Your task to perform on an android device: Open the stopwatch Image 0: 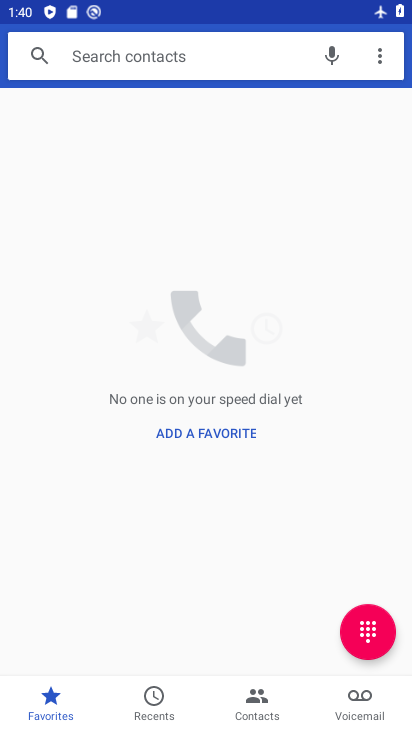
Step 0: press back button
Your task to perform on an android device: Open the stopwatch Image 1: 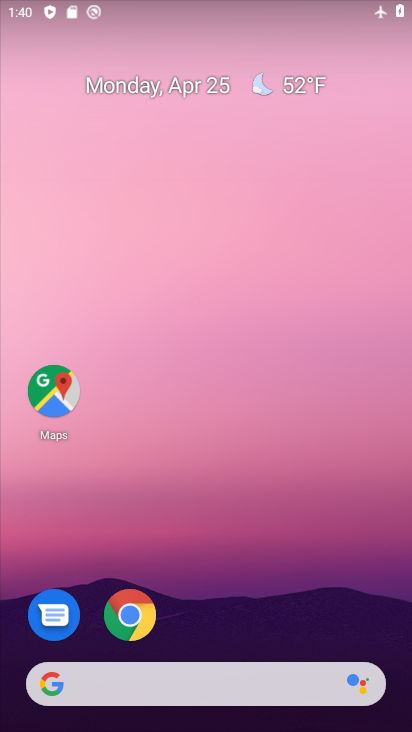
Step 1: drag from (234, 579) to (212, 27)
Your task to perform on an android device: Open the stopwatch Image 2: 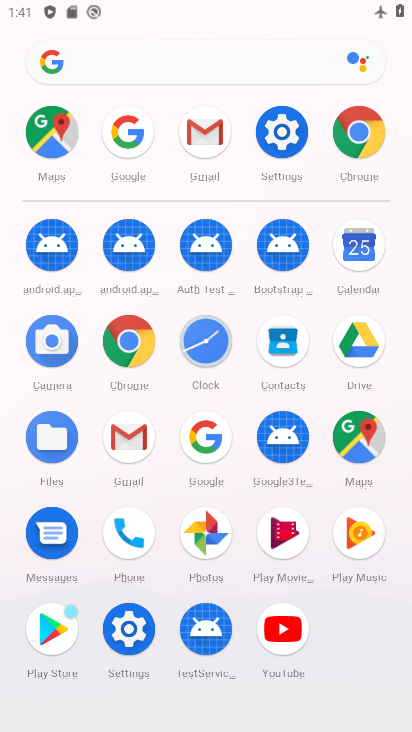
Step 2: click (205, 341)
Your task to perform on an android device: Open the stopwatch Image 3: 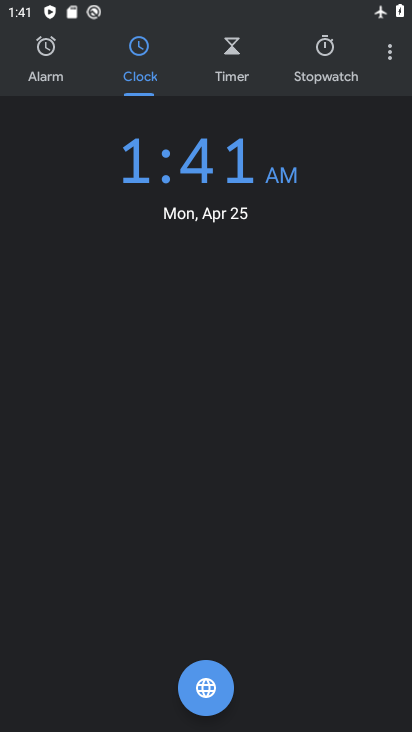
Step 3: click (324, 56)
Your task to perform on an android device: Open the stopwatch Image 4: 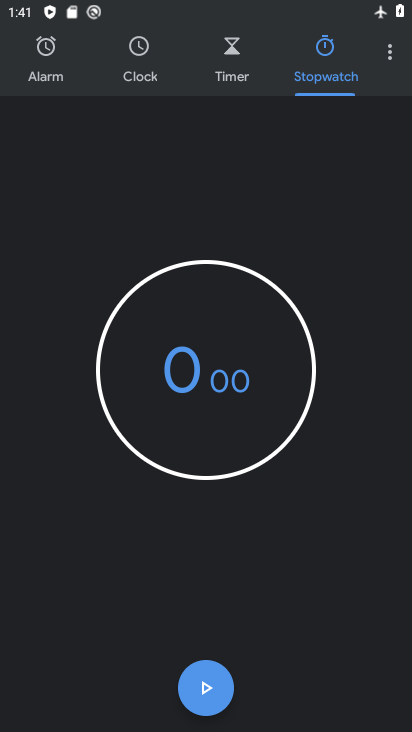
Step 4: task complete